Your task to perform on an android device: Show me popular videos on Youtube Image 0: 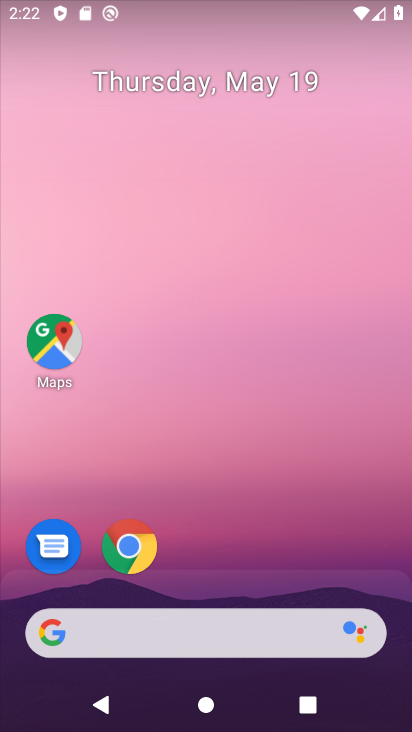
Step 0: press home button
Your task to perform on an android device: Show me popular videos on Youtube Image 1: 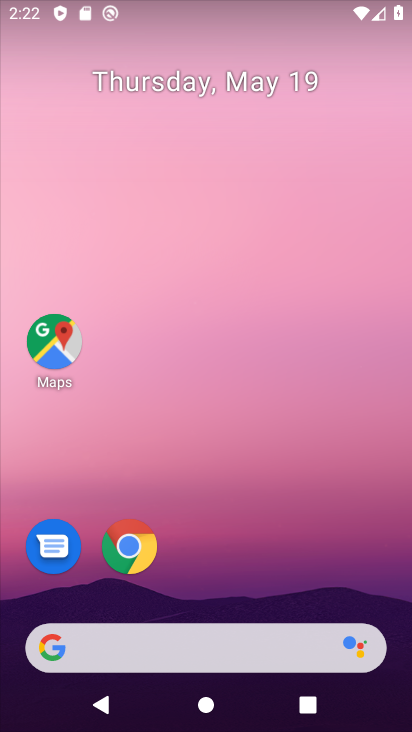
Step 1: drag from (171, 651) to (293, 146)
Your task to perform on an android device: Show me popular videos on Youtube Image 2: 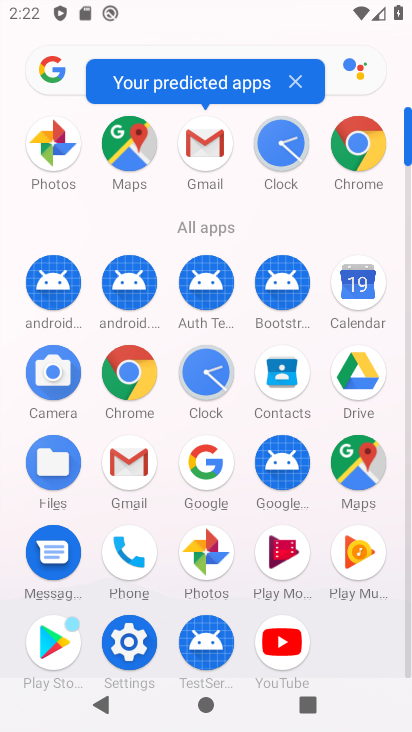
Step 2: click (288, 649)
Your task to perform on an android device: Show me popular videos on Youtube Image 3: 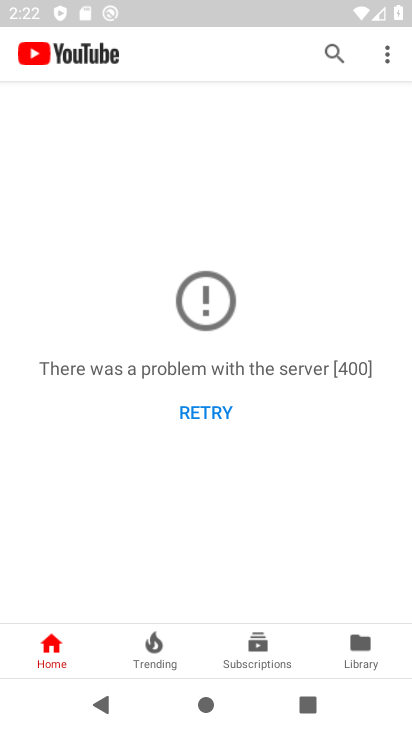
Step 3: click (206, 413)
Your task to perform on an android device: Show me popular videos on Youtube Image 4: 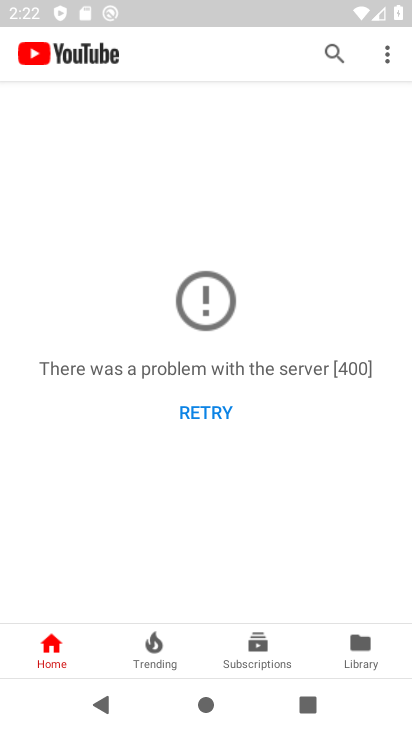
Step 4: click (215, 414)
Your task to perform on an android device: Show me popular videos on Youtube Image 5: 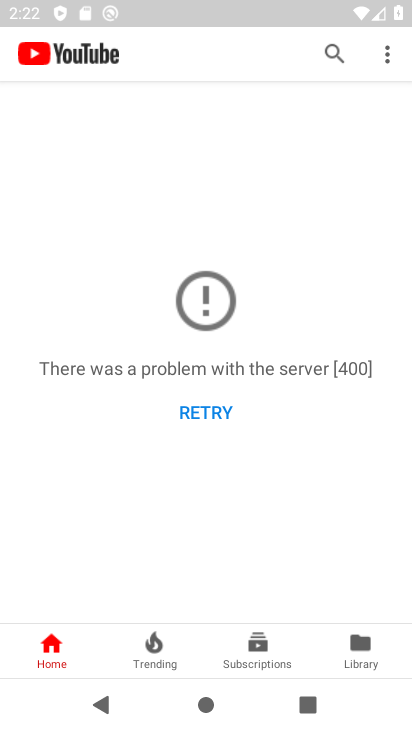
Step 5: click (204, 413)
Your task to perform on an android device: Show me popular videos on Youtube Image 6: 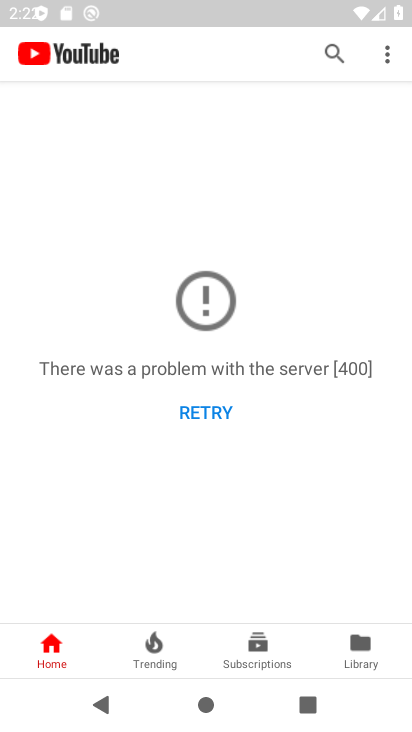
Step 6: drag from (214, 405) to (261, 259)
Your task to perform on an android device: Show me popular videos on Youtube Image 7: 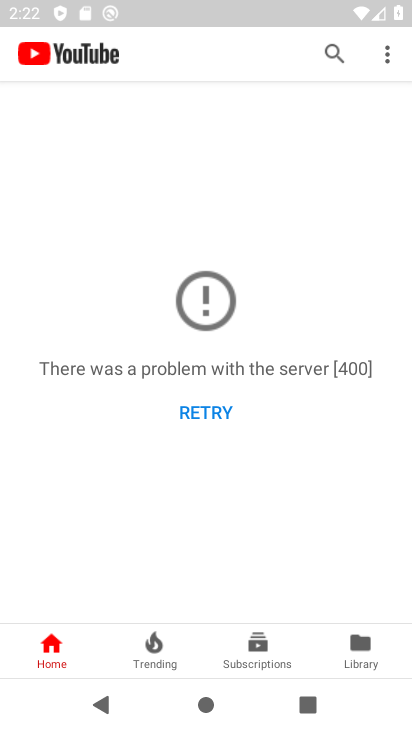
Step 7: click (210, 402)
Your task to perform on an android device: Show me popular videos on Youtube Image 8: 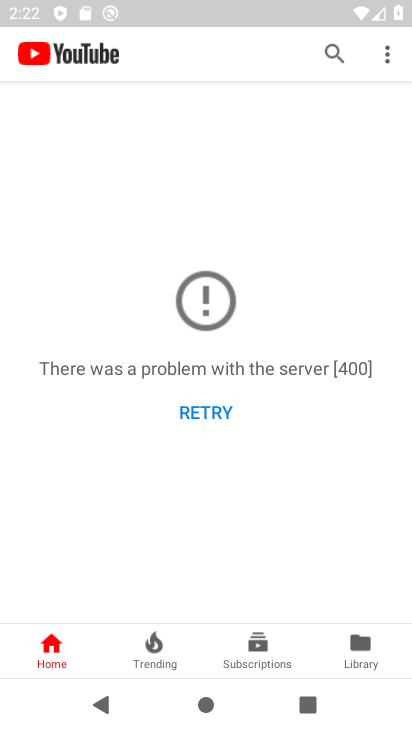
Step 8: click (204, 411)
Your task to perform on an android device: Show me popular videos on Youtube Image 9: 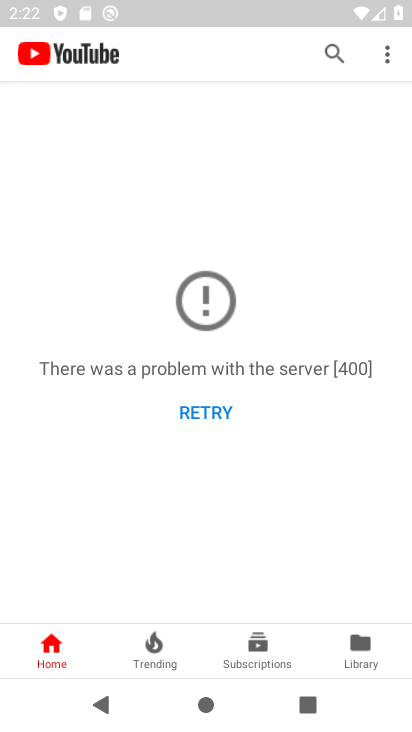
Step 9: task complete